Your task to perform on an android device: set an alarm Image 0: 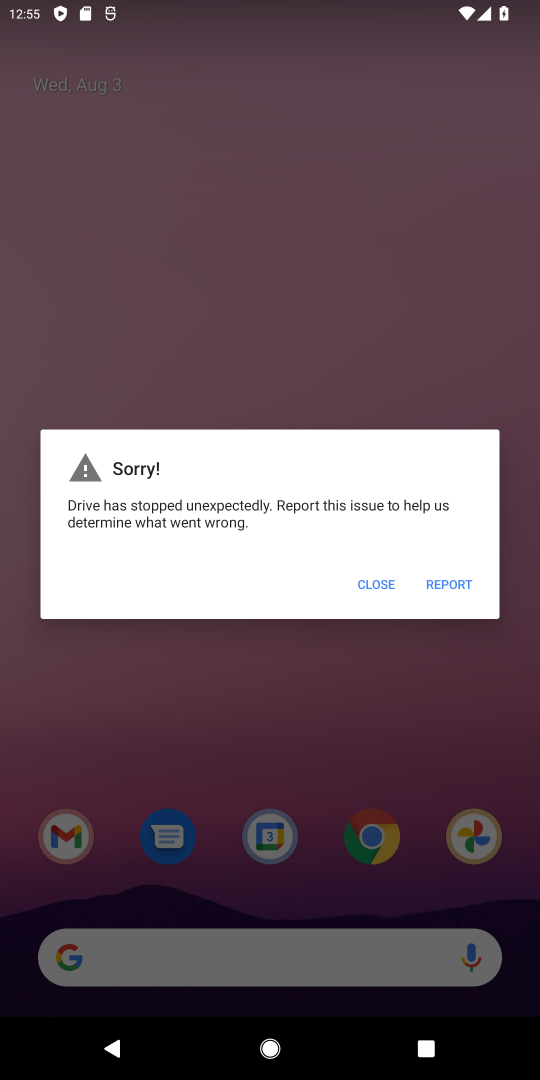
Step 0: press home button
Your task to perform on an android device: set an alarm Image 1: 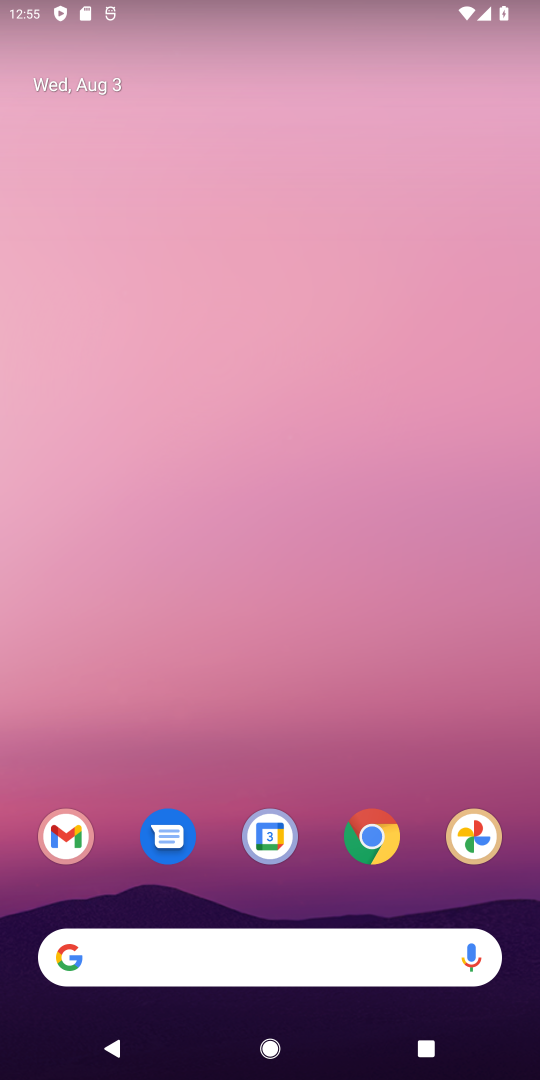
Step 1: drag from (206, 878) to (254, 364)
Your task to perform on an android device: set an alarm Image 2: 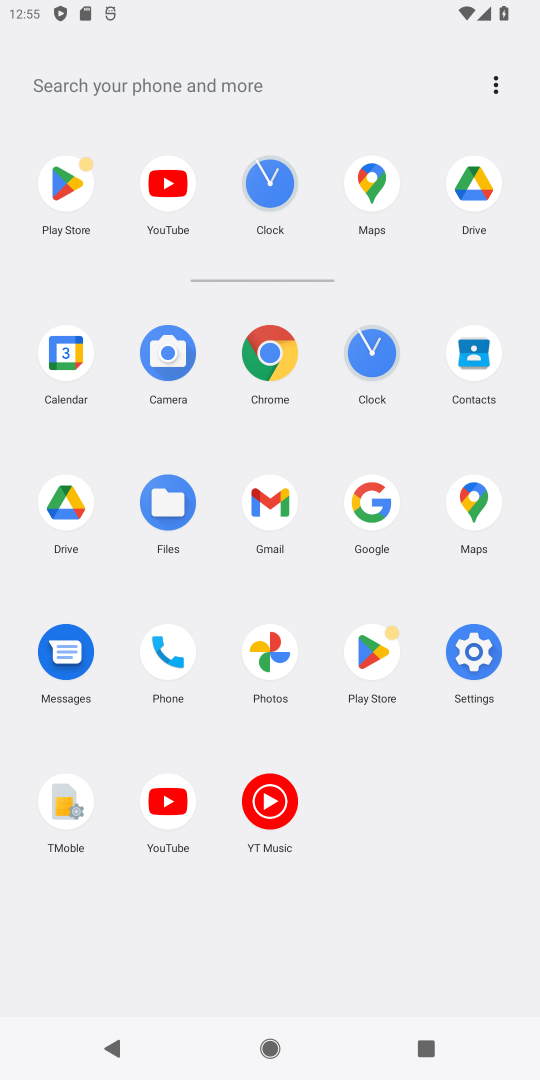
Step 2: click (263, 358)
Your task to perform on an android device: set an alarm Image 3: 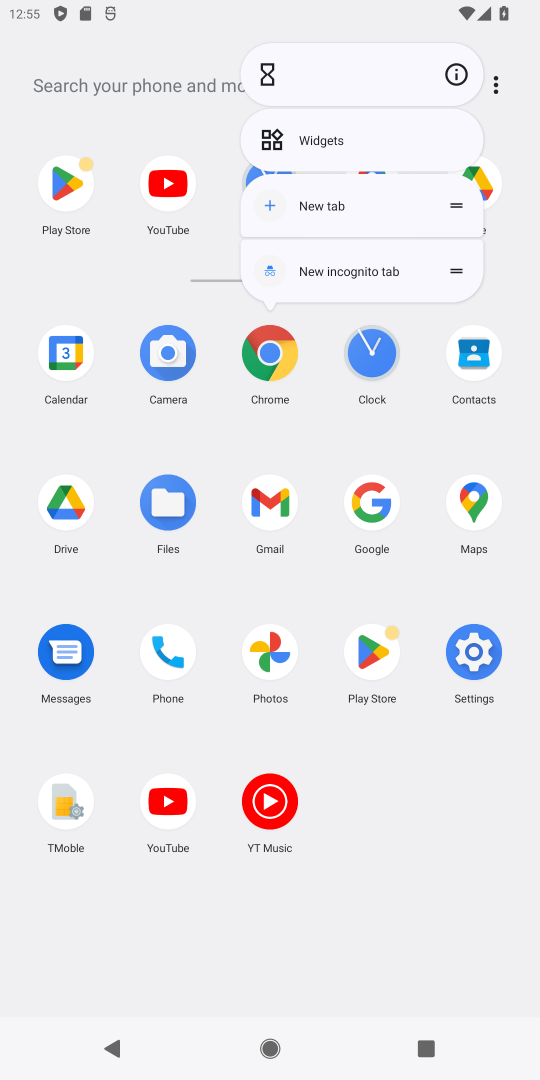
Step 3: click (457, 76)
Your task to perform on an android device: set an alarm Image 4: 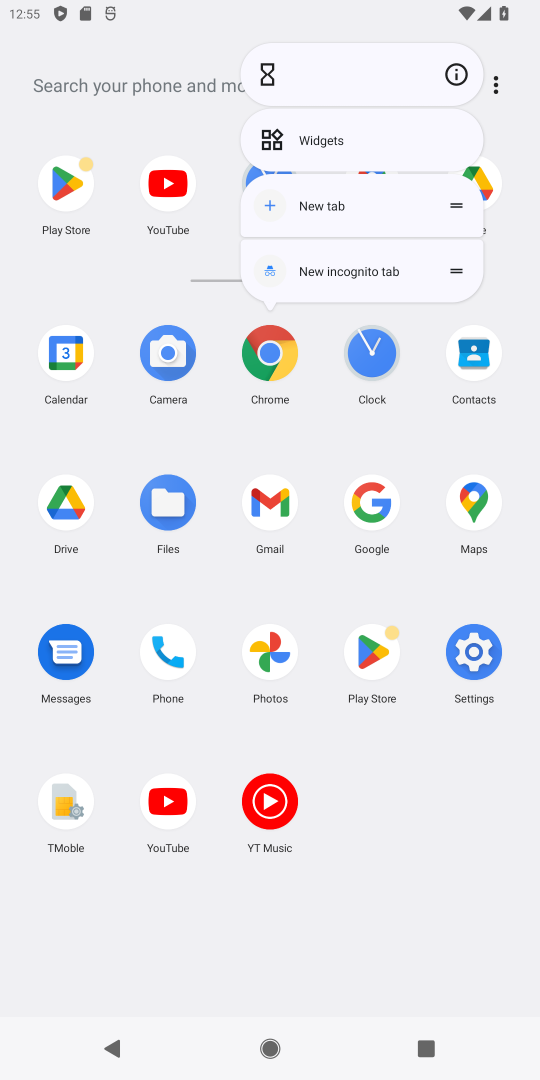
Step 4: click (454, 76)
Your task to perform on an android device: set an alarm Image 5: 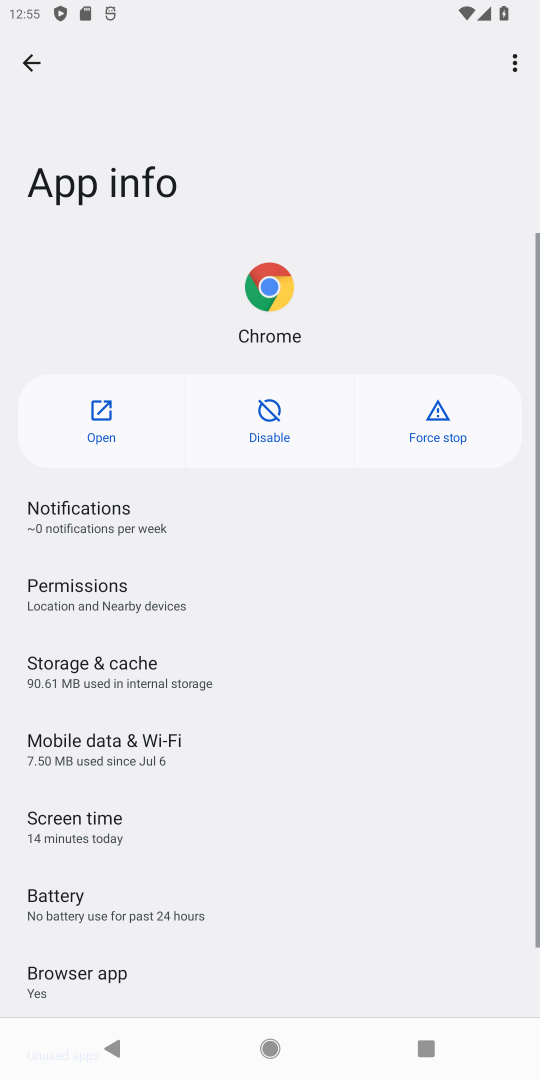
Step 5: click (90, 417)
Your task to perform on an android device: set an alarm Image 6: 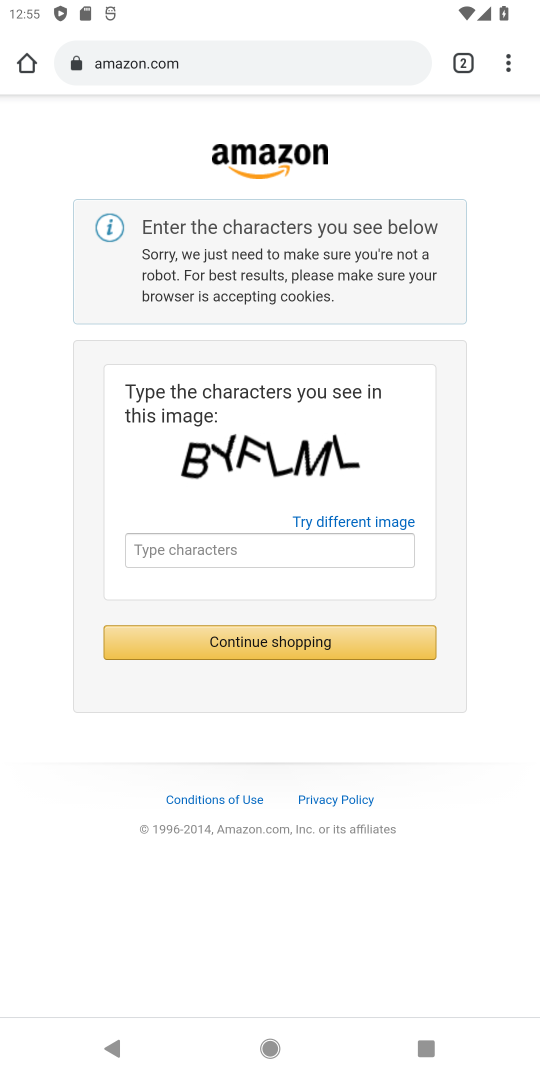
Step 6: press home button
Your task to perform on an android device: set an alarm Image 7: 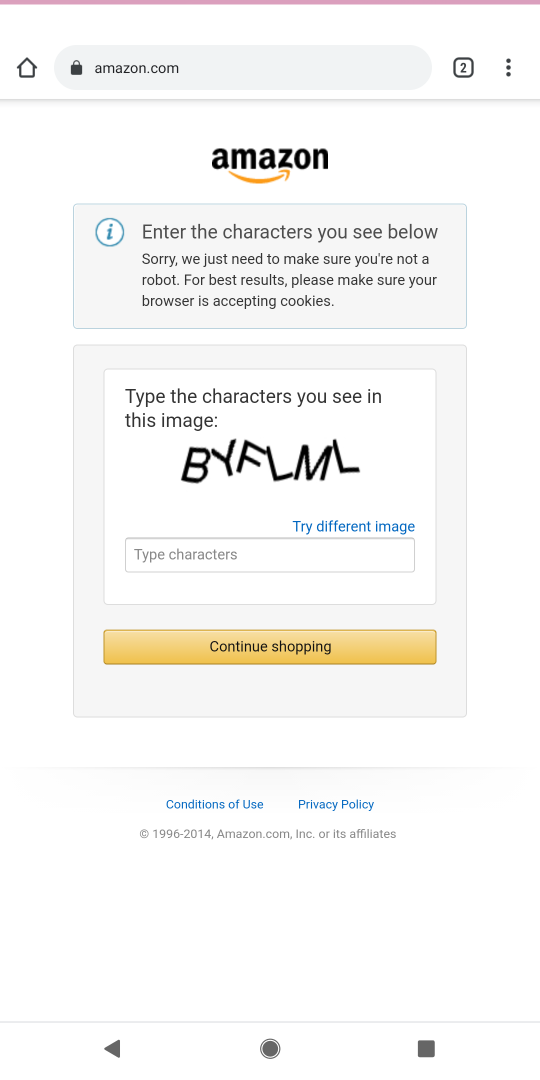
Step 7: drag from (296, 880) to (255, 228)
Your task to perform on an android device: set an alarm Image 8: 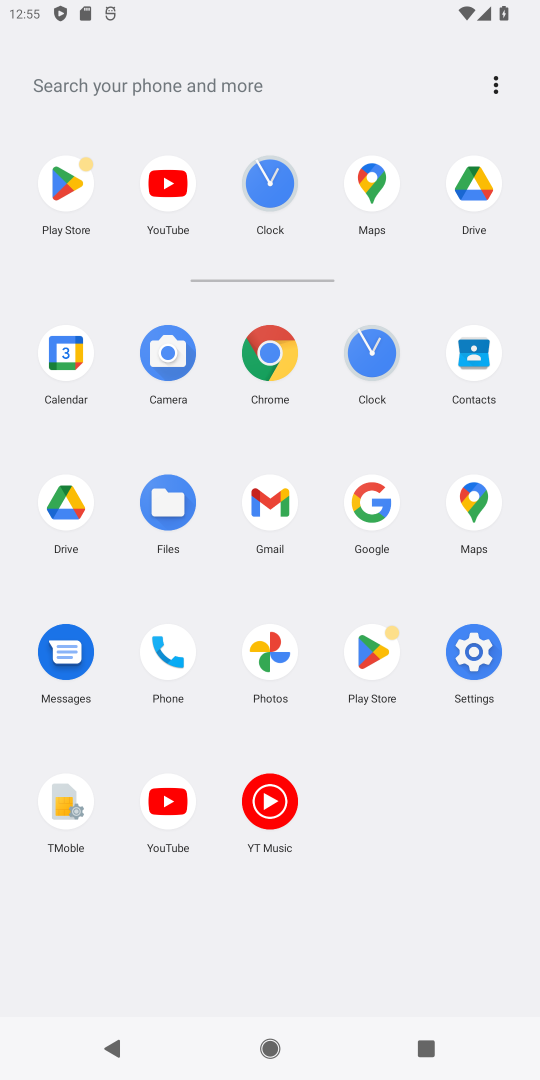
Step 8: click (380, 351)
Your task to perform on an android device: set an alarm Image 9: 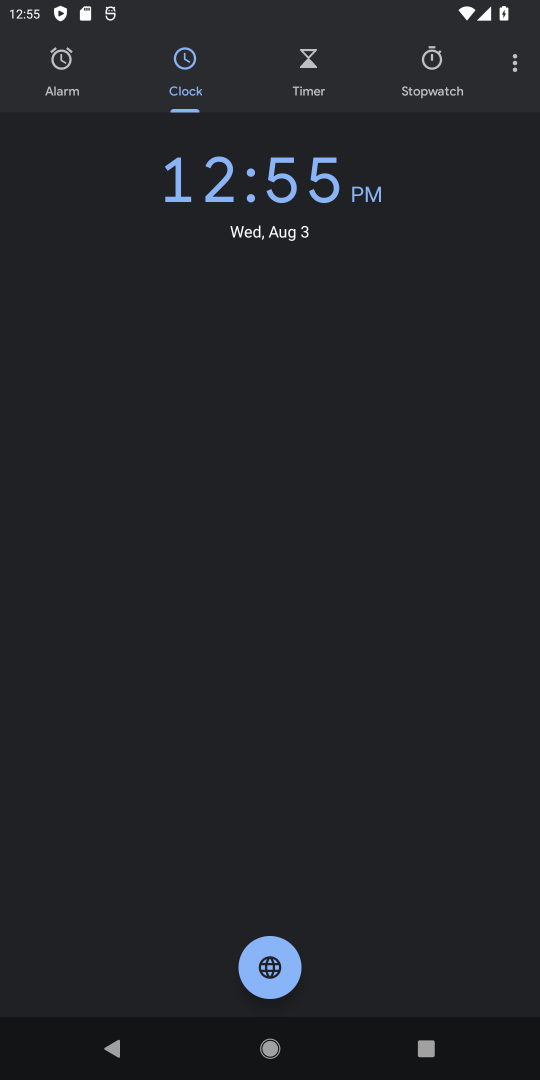
Step 9: click (71, 72)
Your task to perform on an android device: set an alarm Image 10: 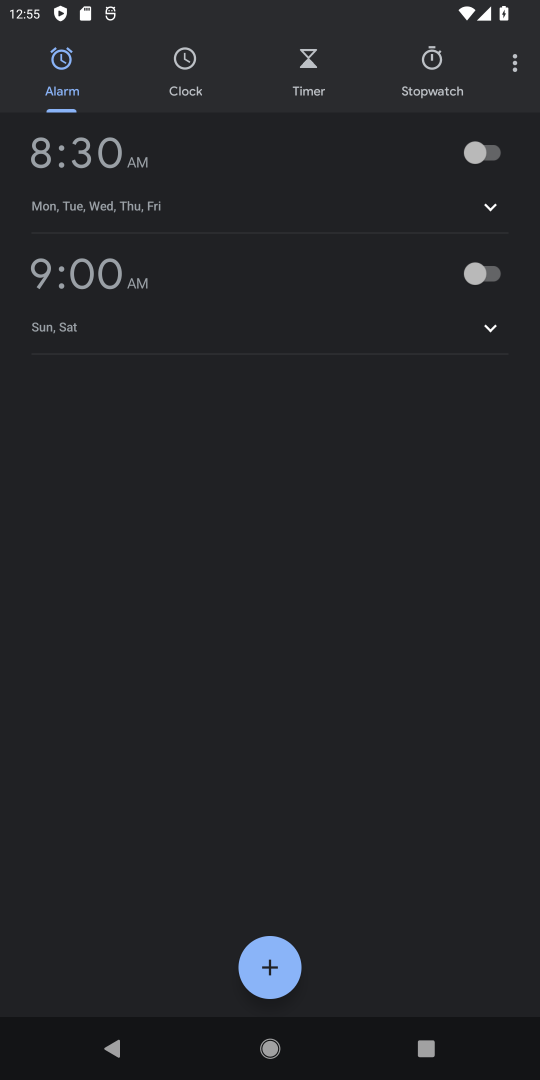
Step 10: click (492, 154)
Your task to perform on an android device: set an alarm Image 11: 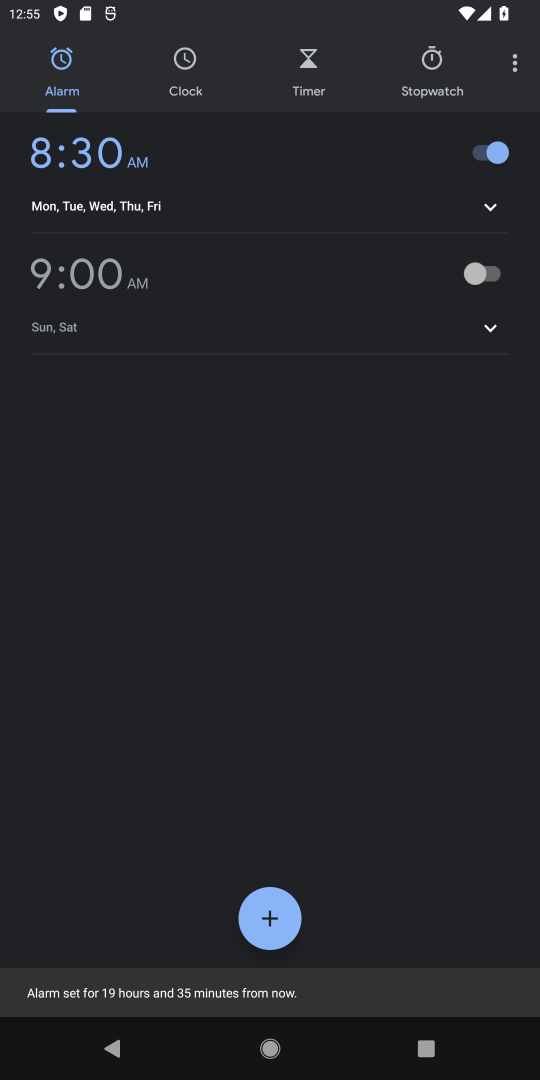
Step 11: task complete